Your task to perform on an android device: open app "Adobe Acrobat Reader: Edit PDF" Image 0: 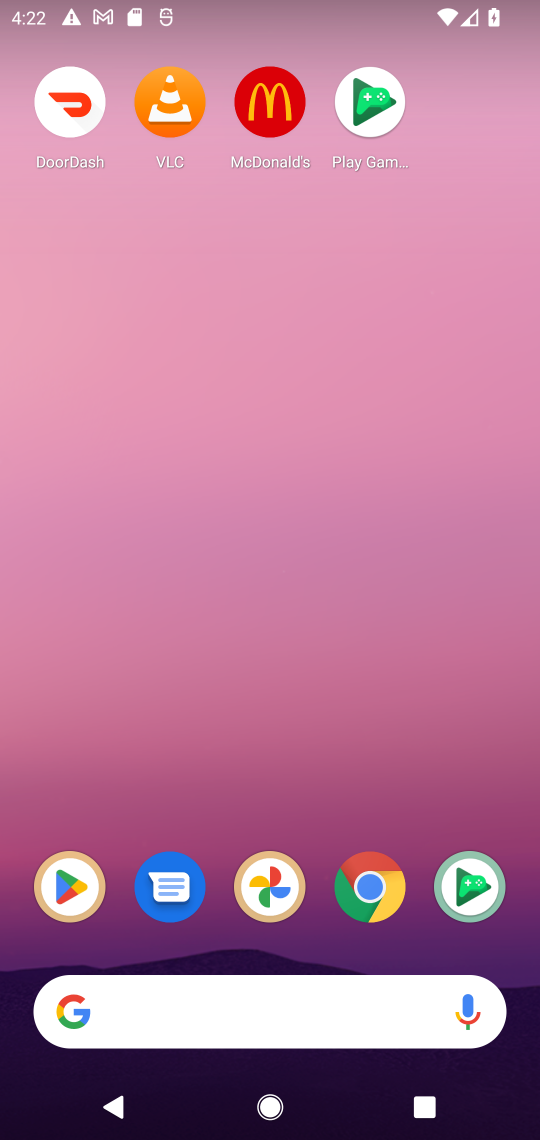
Step 0: click (71, 877)
Your task to perform on an android device: open app "Adobe Acrobat Reader: Edit PDF" Image 1: 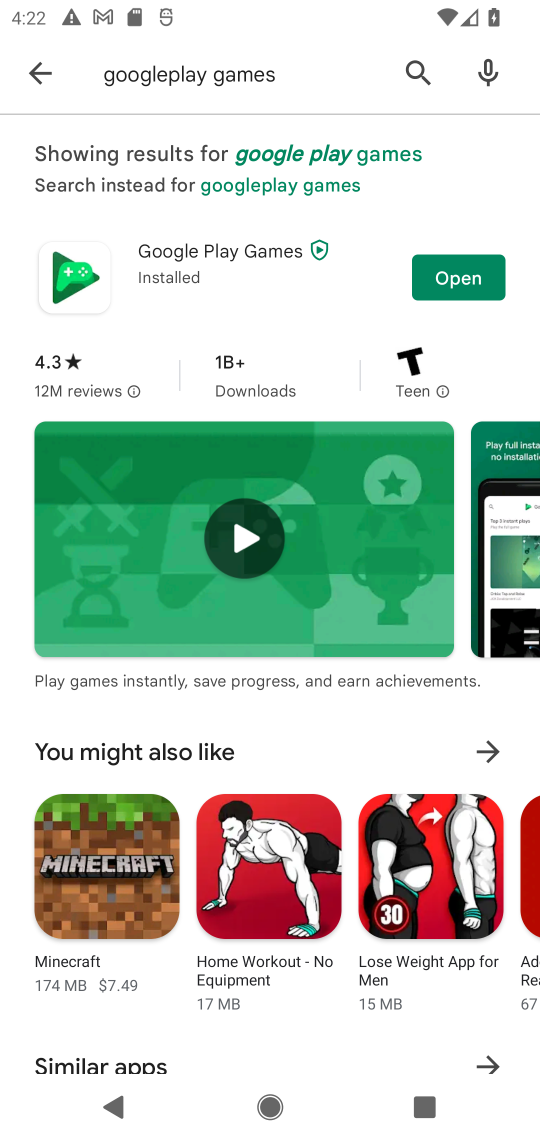
Step 1: click (254, 77)
Your task to perform on an android device: open app "Adobe Acrobat Reader: Edit PDF" Image 2: 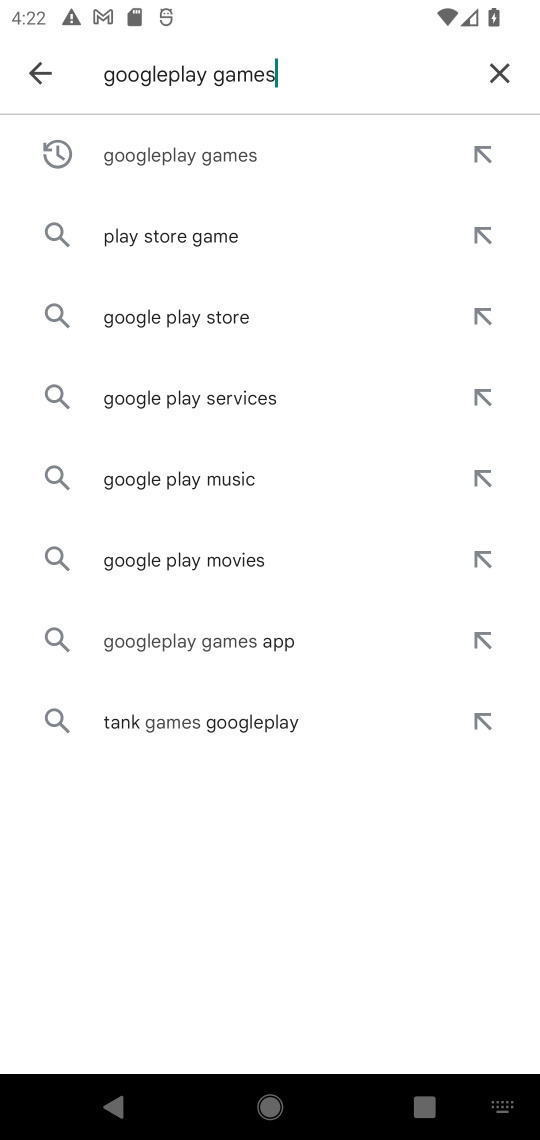
Step 2: click (497, 64)
Your task to perform on an android device: open app "Adobe Acrobat Reader: Edit PDF" Image 3: 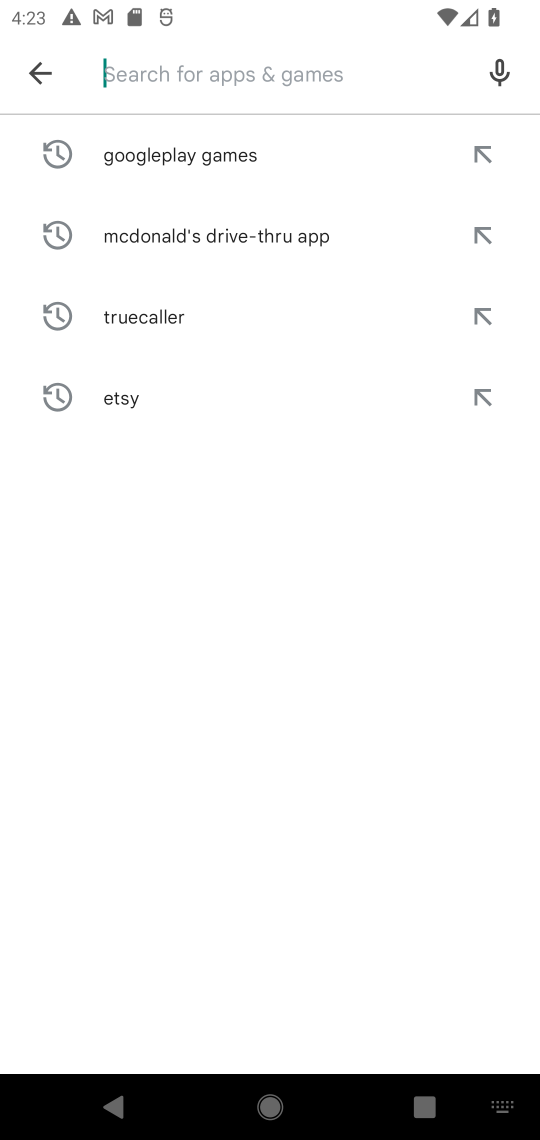
Step 3: type "Adobe Acrobar Reader"
Your task to perform on an android device: open app "Adobe Acrobat Reader: Edit PDF" Image 4: 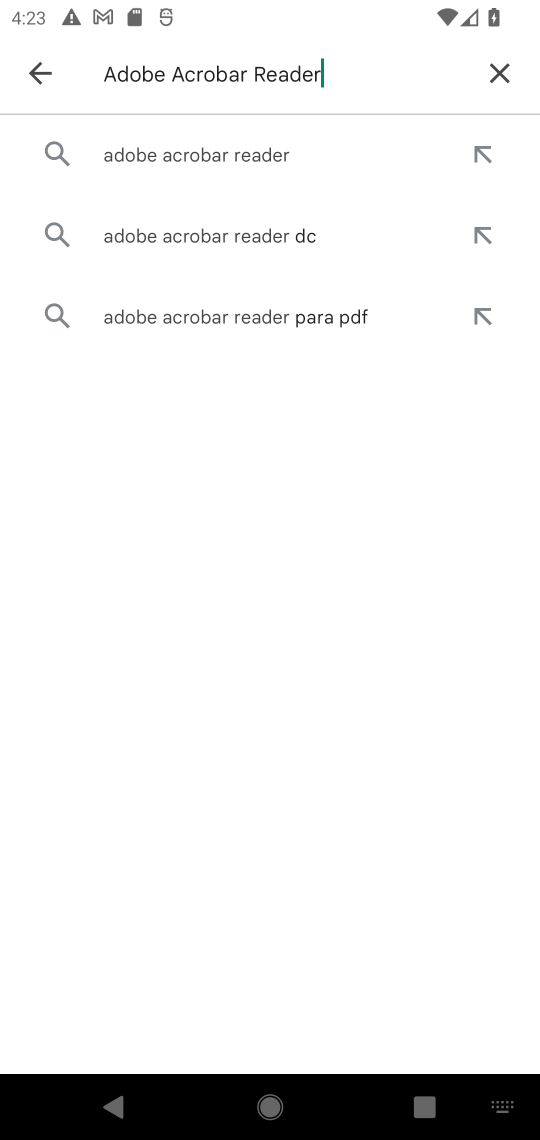
Step 4: click (230, 173)
Your task to perform on an android device: open app "Adobe Acrobat Reader: Edit PDF" Image 5: 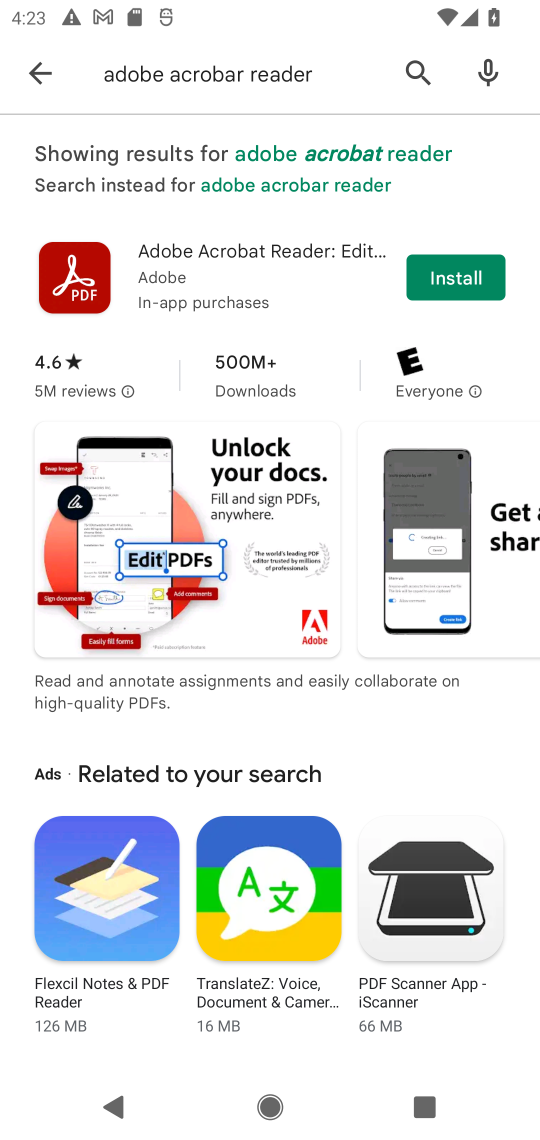
Step 5: task complete